Your task to perform on an android device: set an alarm Image 0: 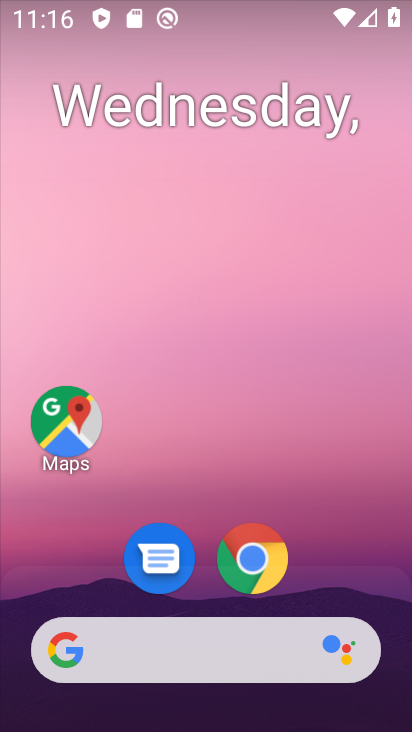
Step 0: drag from (284, 428) to (240, 22)
Your task to perform on an android device: set an alarm Image 1: 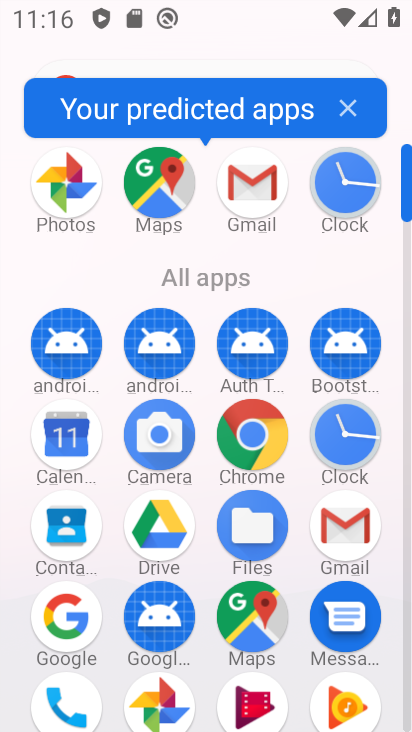
Step 1: click (348, 192)
Your task to perform on an android device: set an alarm Image 2: 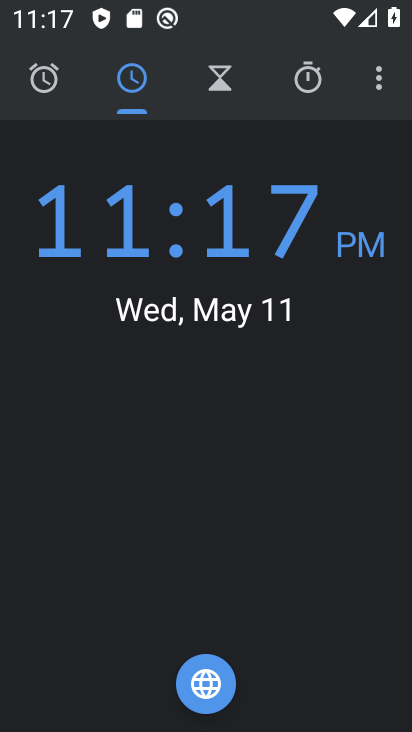
Step 2: click (47, 80)
Your task to perform on an android device: set an alarm Image 3: 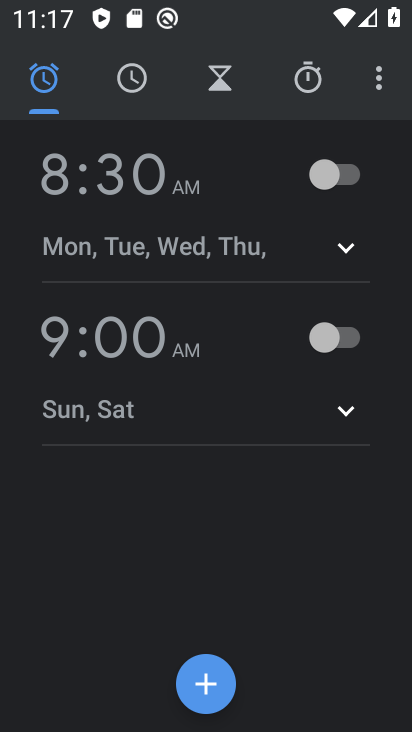
Step 3: click (206, 680)
Your task to perform on an android device: set an alarm Image 4: 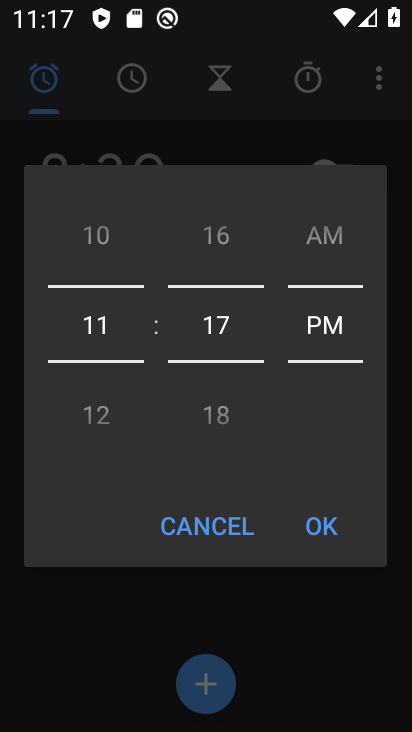
Step 4: drag from (217, 251) to (203, 454)
Your task to perform on an android device: set an alarm Image 5: 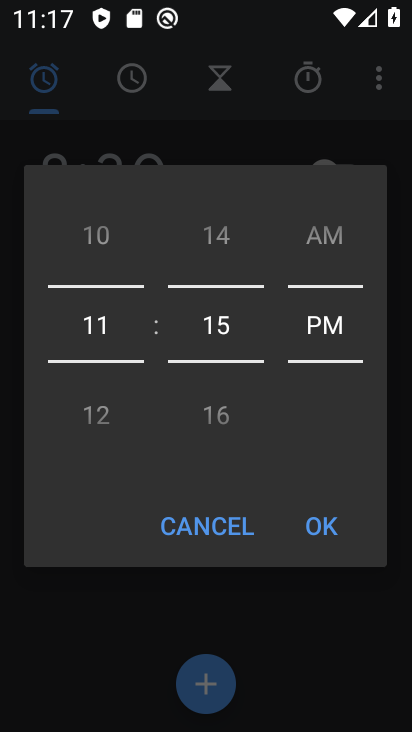
Step 5: click (324, 524)
Your task to perform on an android device: set an alarm Image 6: 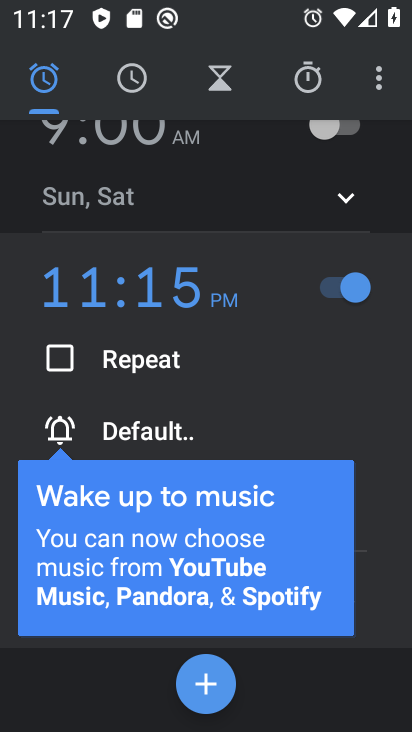
Step 6: task complete